Your task to perform on an android device: Go to ESPN.com Image 0: 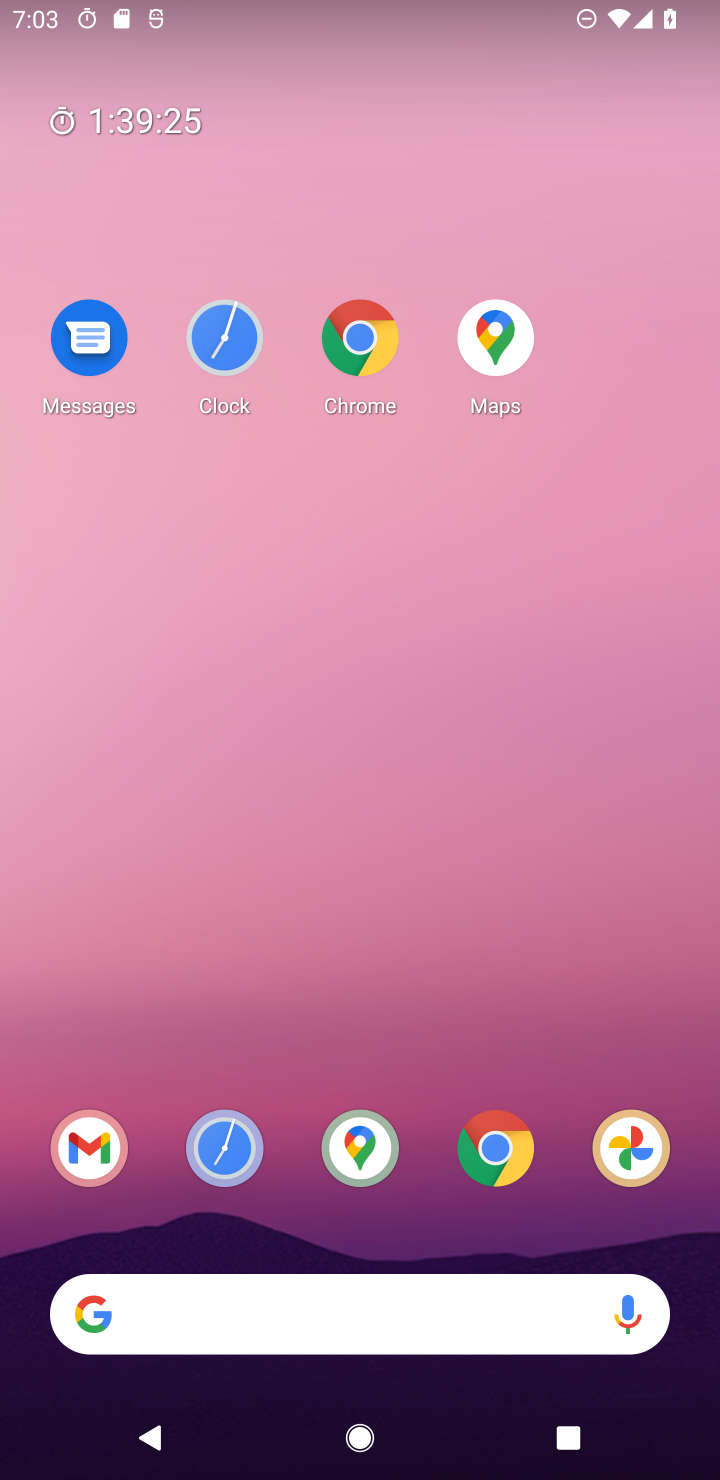
Step 0: drag from (393, 1115) to (453, 233)
Your task to perform on an android device: Go to ESPN.com Image 1: 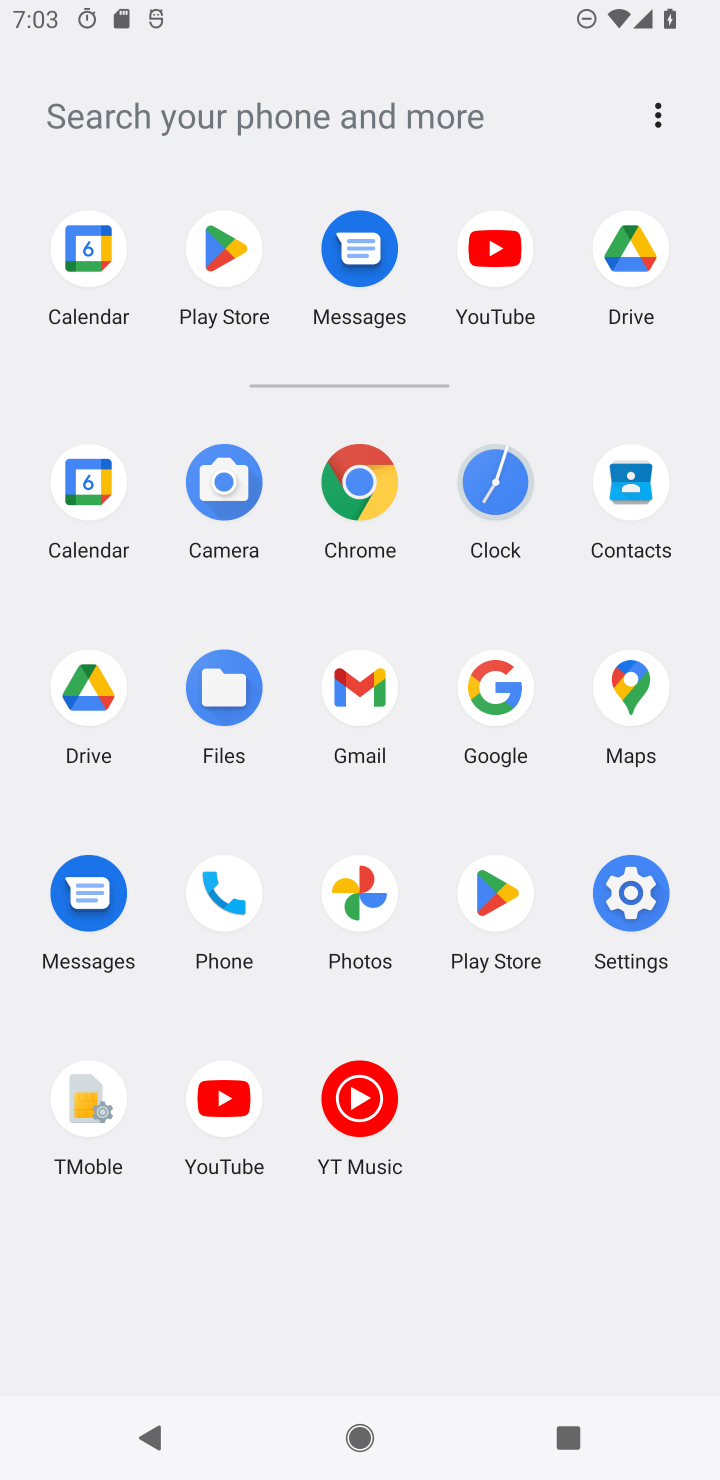
Step 1: click (319, 483)
Your task to perform on an android device: Go to ESPN.com Image 2: 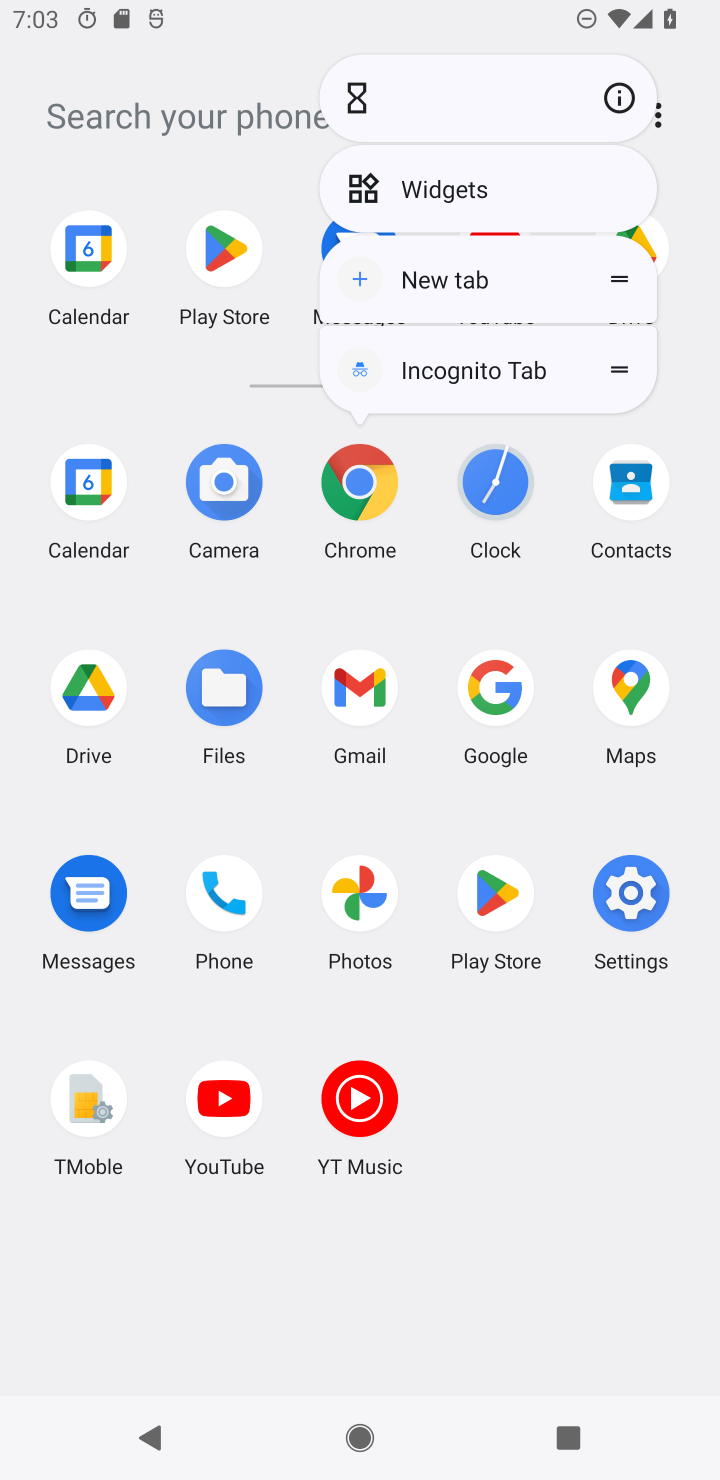
Step 2: click (606, 105)
Your task to perform on an android device: Go to ESPN.com Image 3: 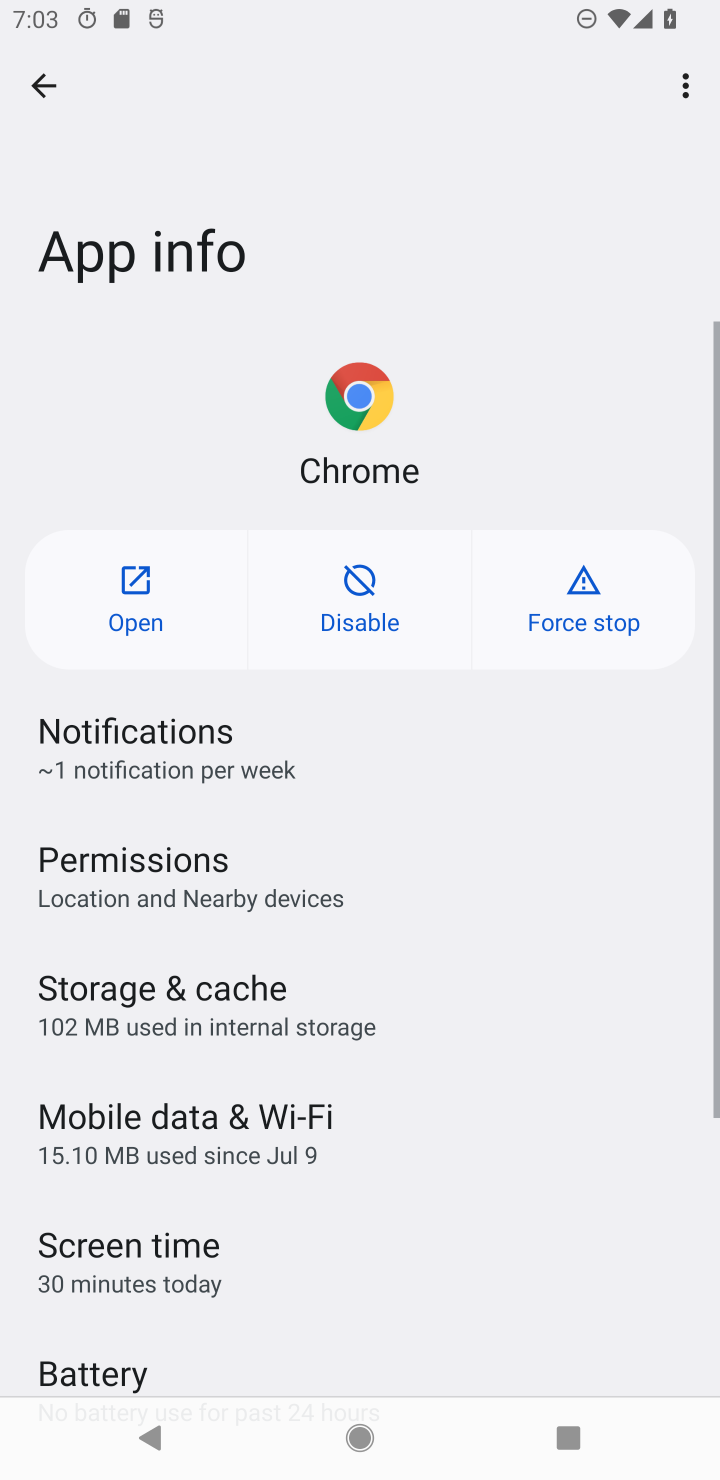
Step 3: click (113, 625)
Your task to perform on an android device: Go to ESPN.com Image 4: 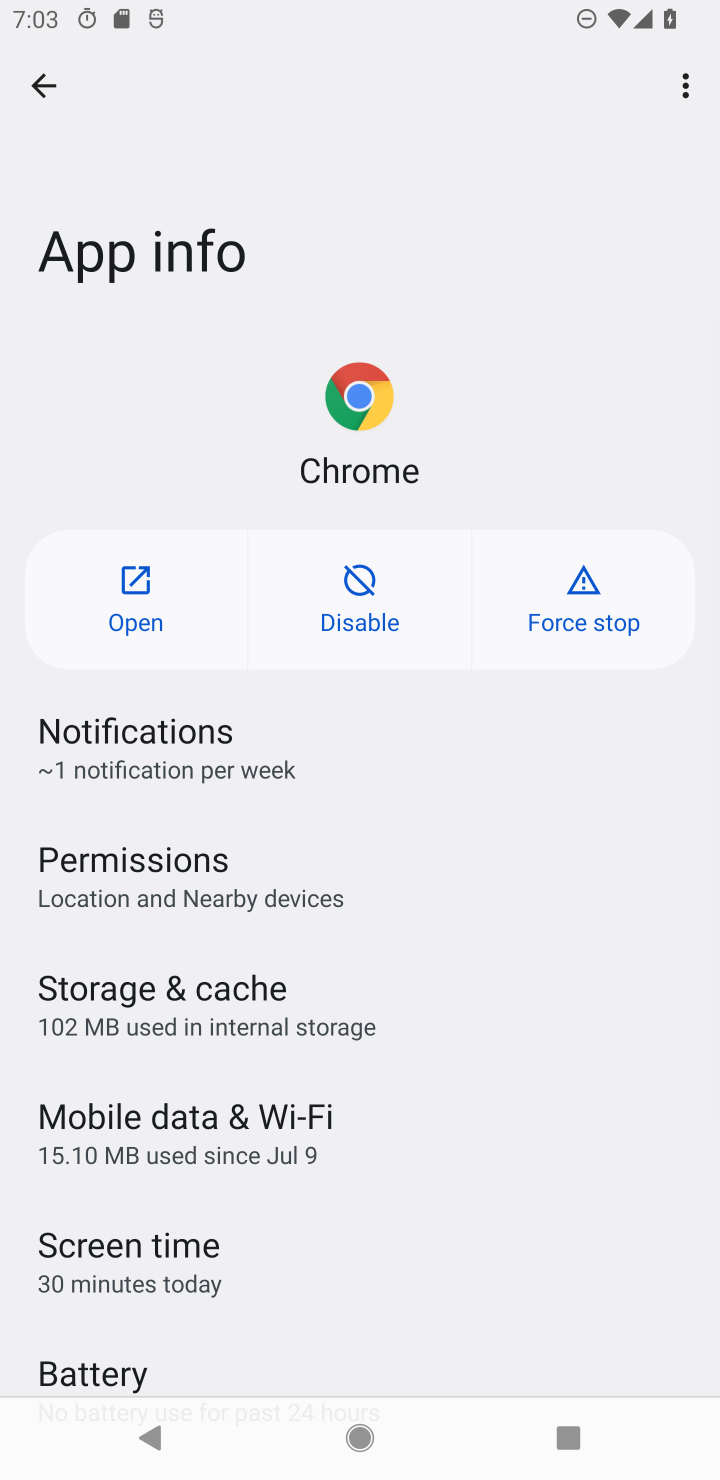
Step 4: click (121, 617)
Your task to perform on an android device: Go to ESPN.com Image 5: 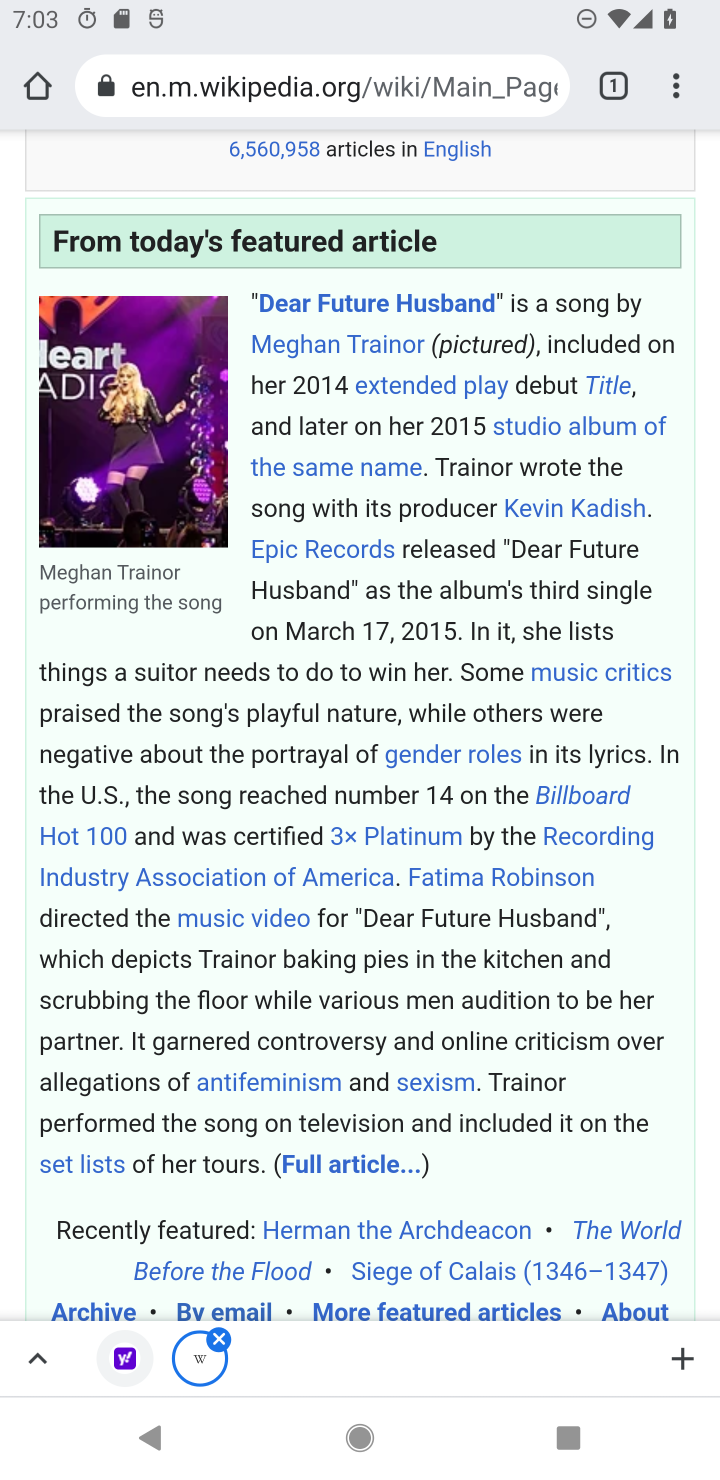
Step 5: click (309, 85)
Your task to perform on an android device: Go to ESPN.com Image 6: 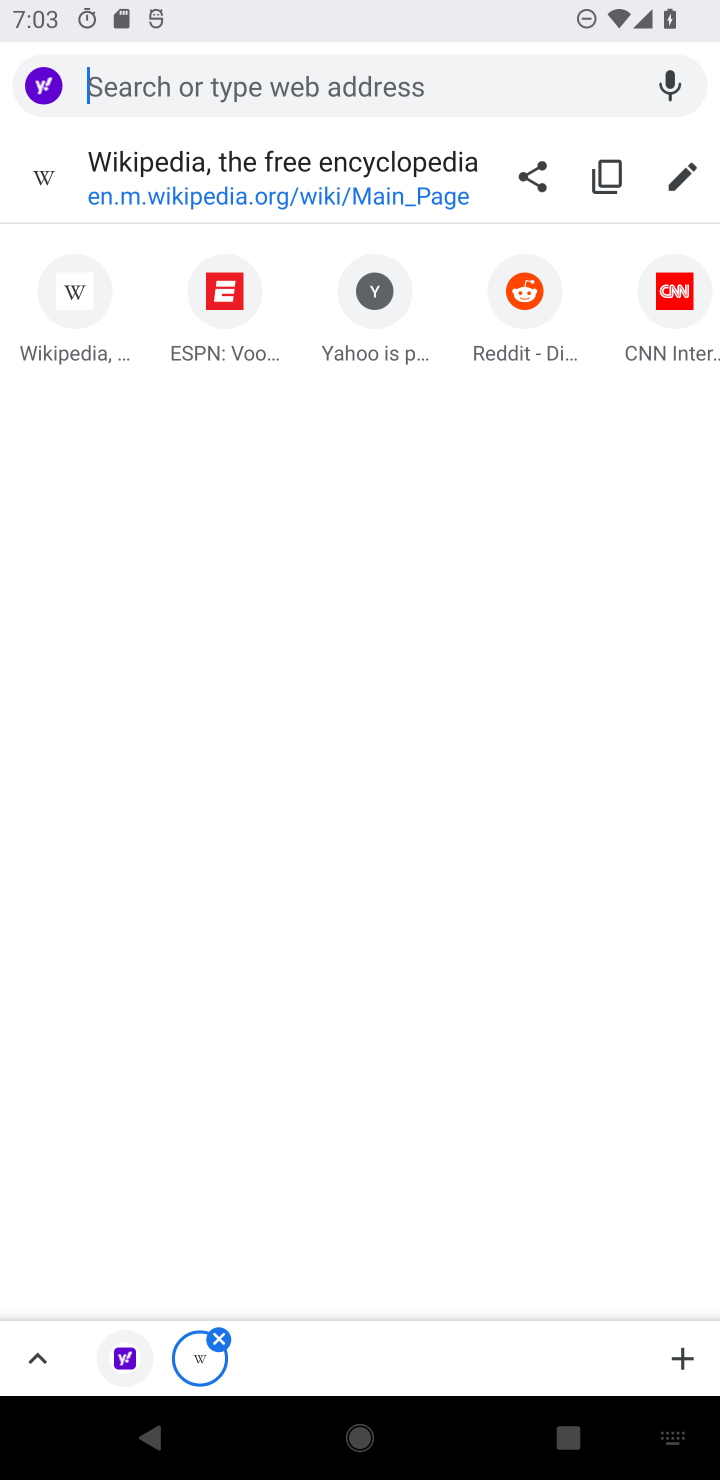
Step 6: type "espn.com"
Your task to perform on an android device: Go to ESPN.com Image 7: 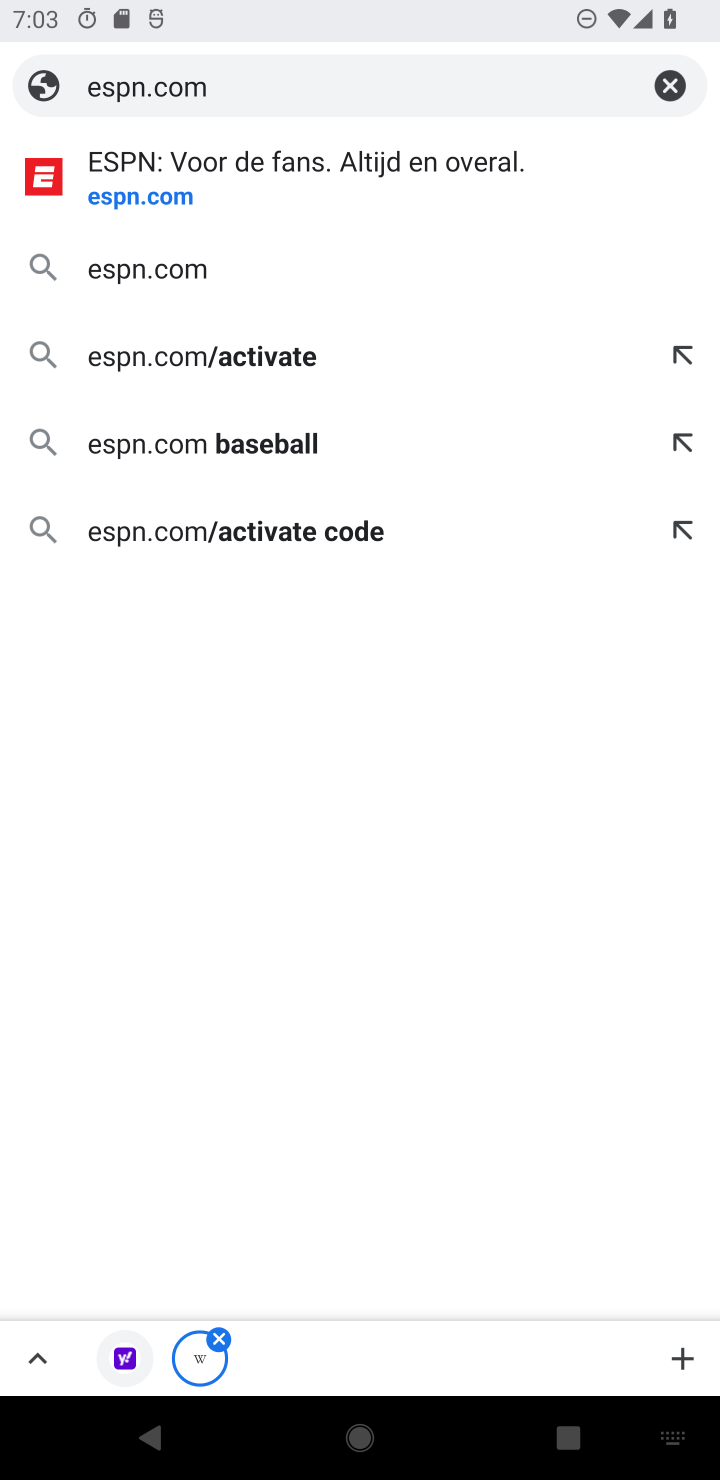
Step 7: click (146, 172)
Your task to perform on an android device: Go to ESPN.com Image 8: 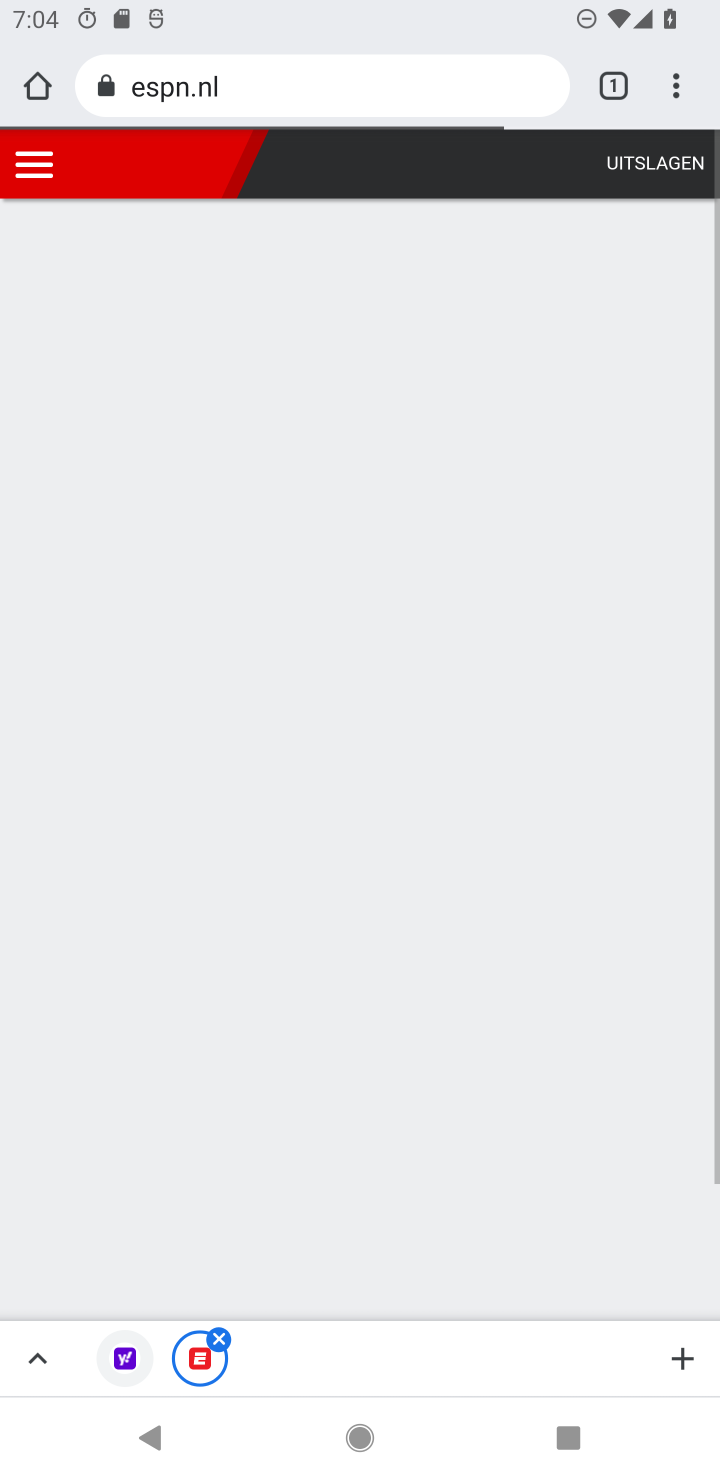
Step 8: task complete